Your task to perform on an android device: stop showing notifications on the lock screen Image 0: 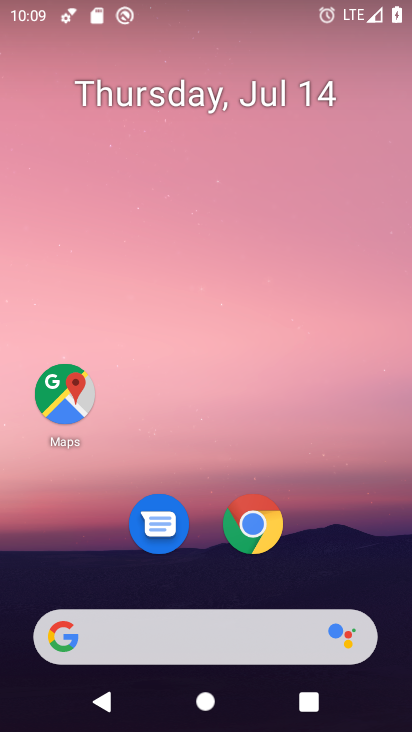
Step 0: drag from (356, 551) to (344, 20)
Your task to perform on an android device: stop showing notifications on the lock screen Image 1: 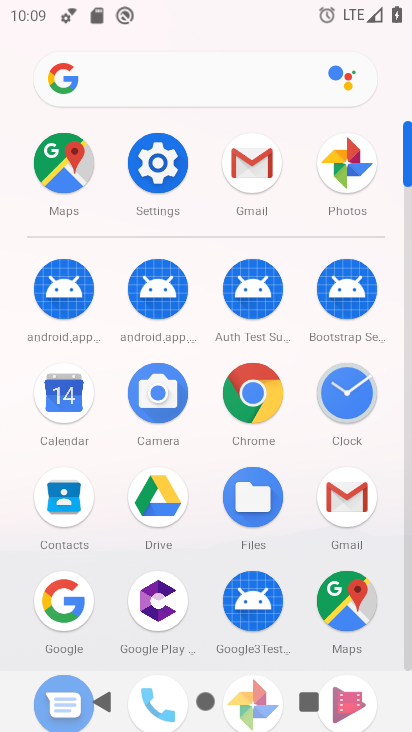
Step 1: click (176, 154)
Your task to perform on an android device: stop showing notifications on the lock screen Image 2: 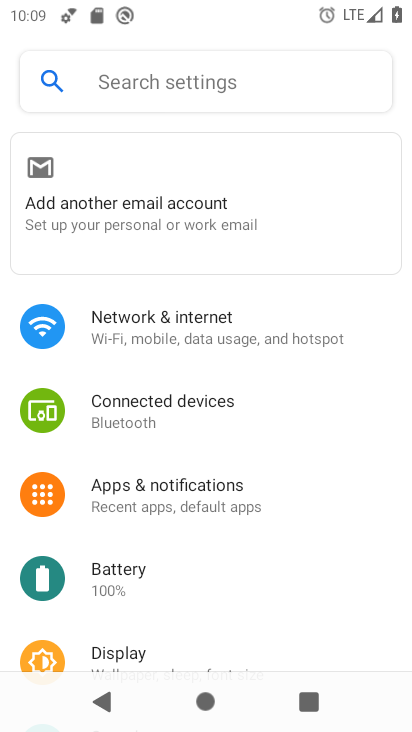
Step 2: click (188, 494)
Your task to perform on an android device: stop showing notifications on the lock screen Image 3: 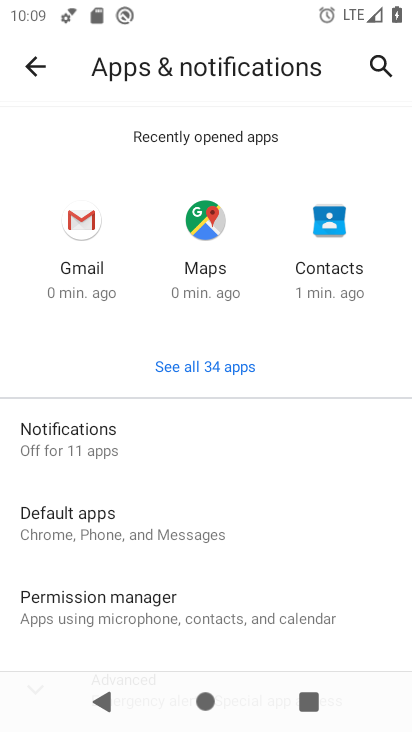
Step 3: click (91, 437)
Your task to perform on an android device: stop showing notifications on the lock screen Image 4: 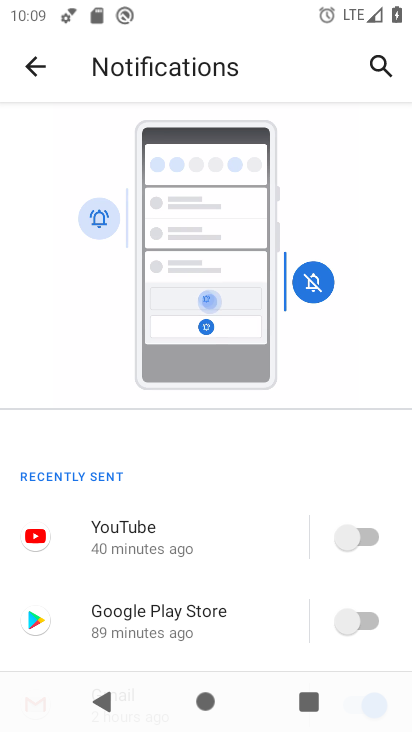
Step 4: drag from (246, 603) to (324, 118)
Your task to perform on an android device: stop showing notifications on the lock screen Image 5: 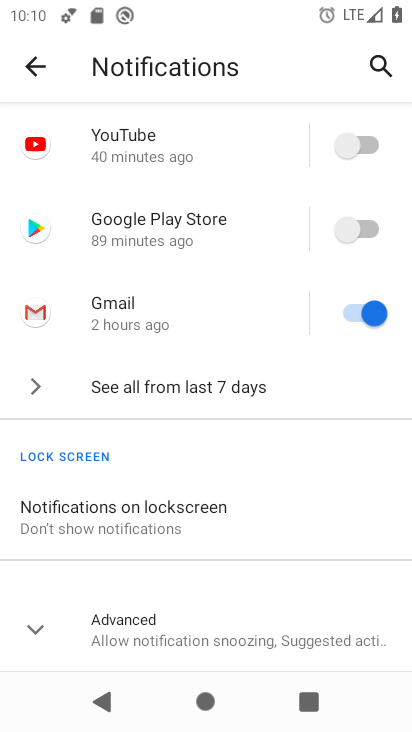
Step 5: click (160, 519)
Your task to perform on an android device: stop showing notifications on the lock screen Image 6: 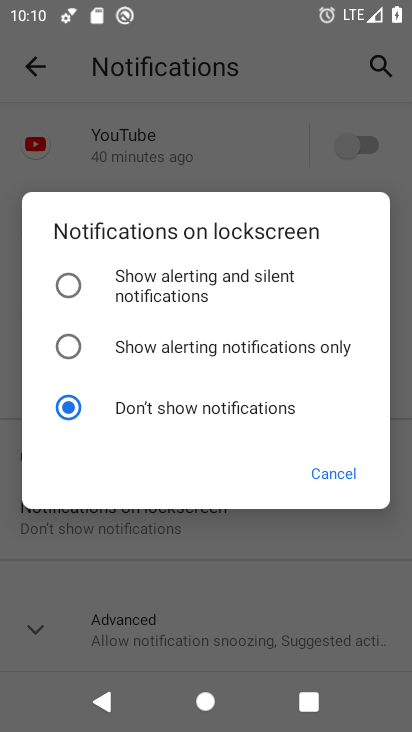
Step 6: click (337, 476)
Your task to perform on an android device: stop showing notifications on the lock screen Image 7: 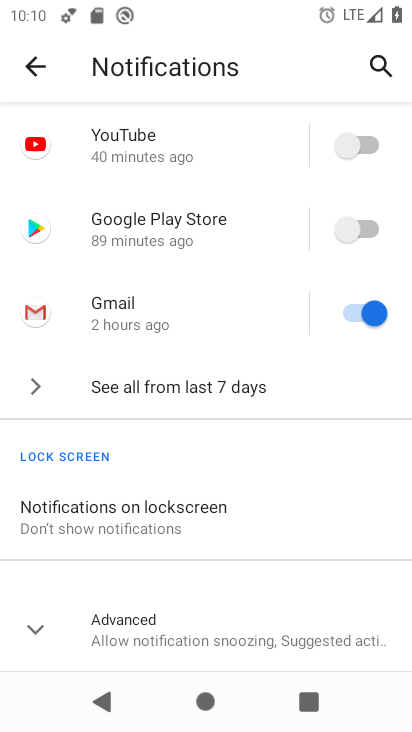
Step 7: task complete